Your task to perform on an android device: Open network settings Image 0: 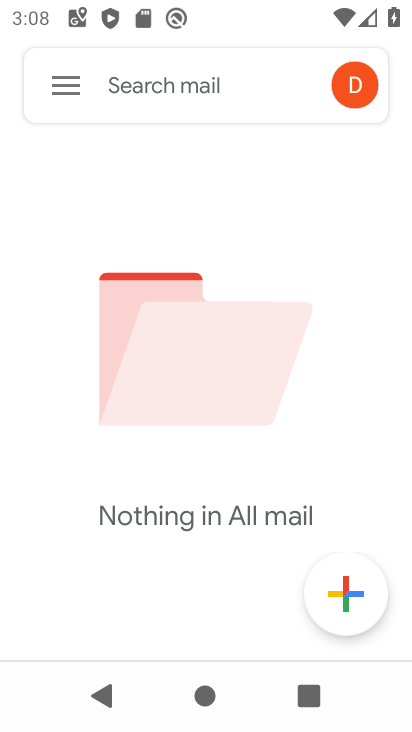
Step 0: press back button
Your task to perform on an android device: Open network settings Image 1: 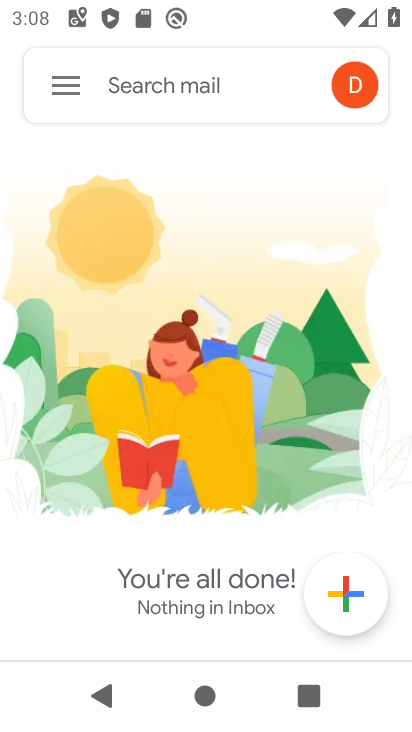
Step 1: press back button
Your task to perform on an android device: Open network settings Image 2: 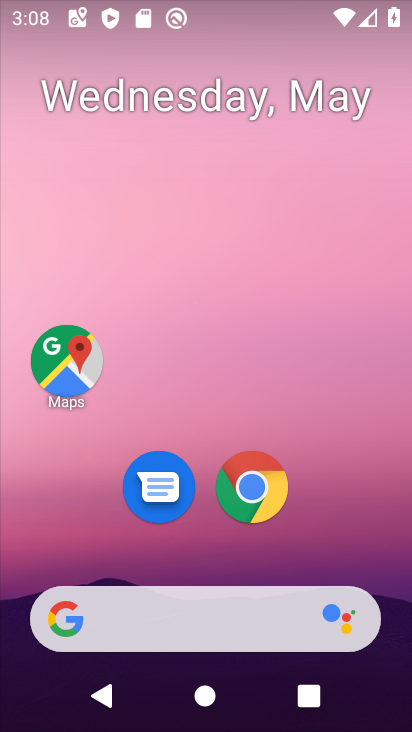
Step 2: drag from (337, 518) to (269, 43)
Your task to perform on an android device: Open network settings Image 3: 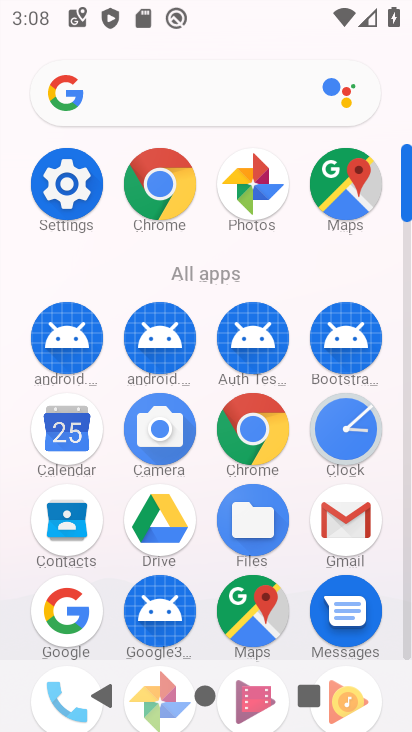
Step 3: click (66, 179)
Your task to perform on an android device: Open network settings Image 4: 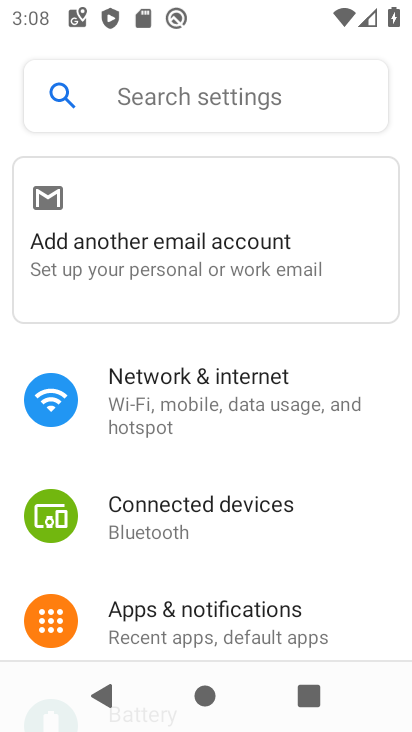
Step 4: drag from (336, 581) to (336, 247)
Your task to perform on an android device: Open network settings Image 5: 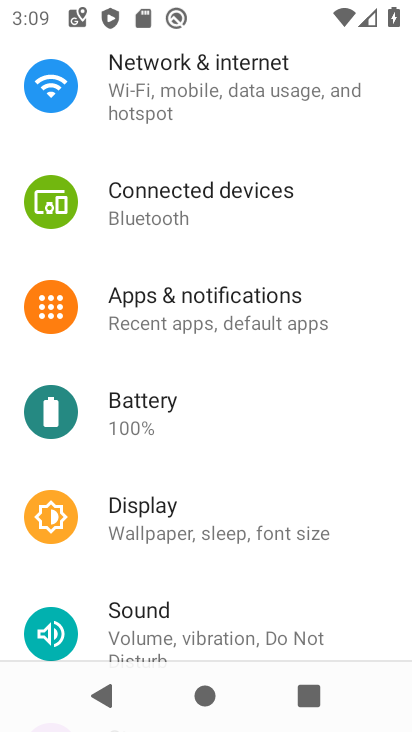
Step 5: drag from (336, 247) to (333, 523)
Your task to perform on an android device: Open network settings Image 6: 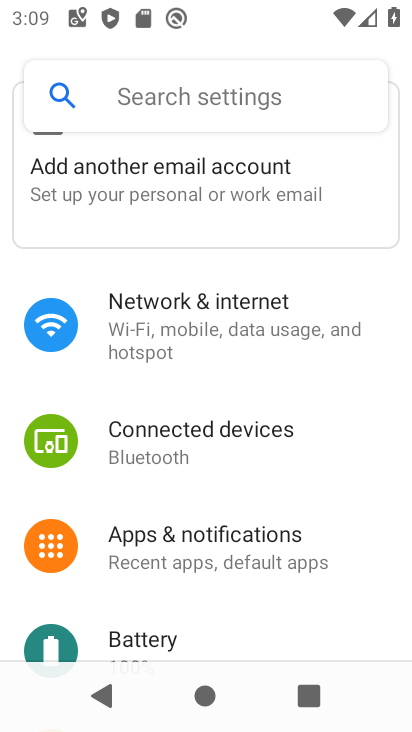
Step 6: click (229, 317)
Your task to perform on an android device: Open network settings Image 7: 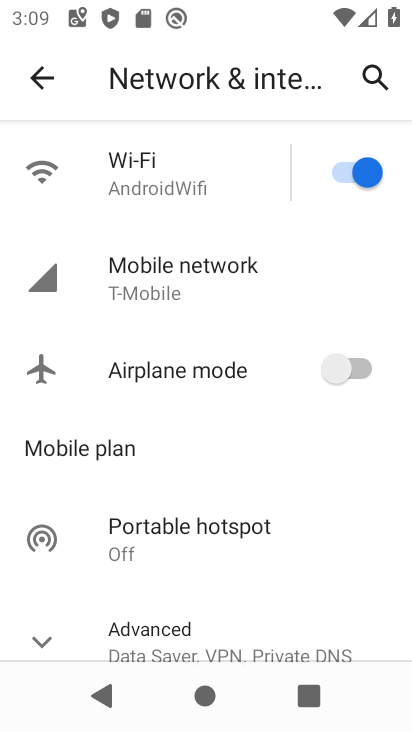
Step 7: click (51, 638)
Your task to perform on an android device: Open network settings Image 8: 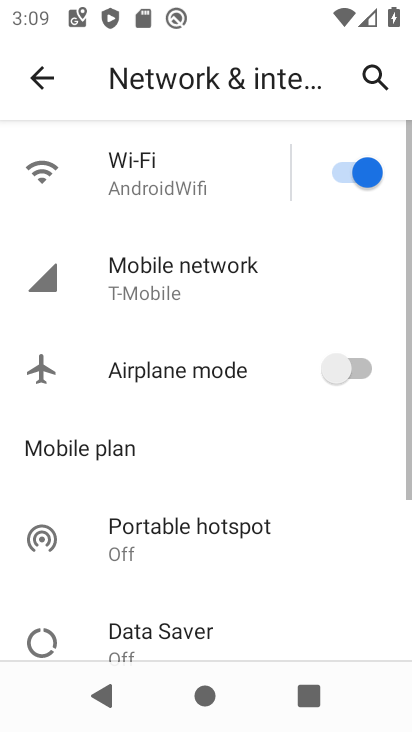
Step 8: task complete